Your task to perform on an android device: Open ESPN.com Image 0: 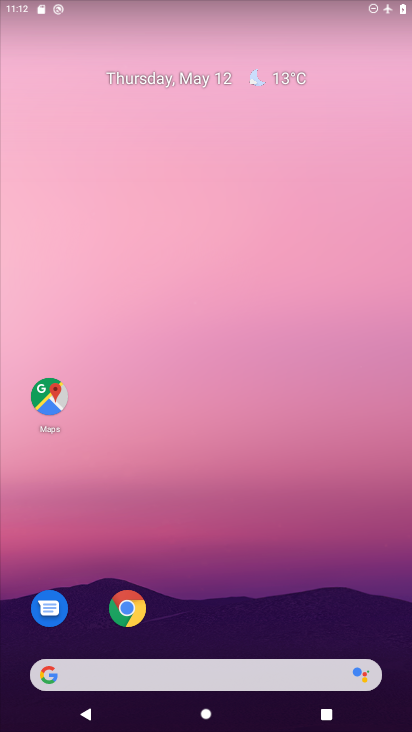
Step 0: drag from (229, 593) to (222, 136)
Your task to perform on an android device: Open ESPN.com Image 1: 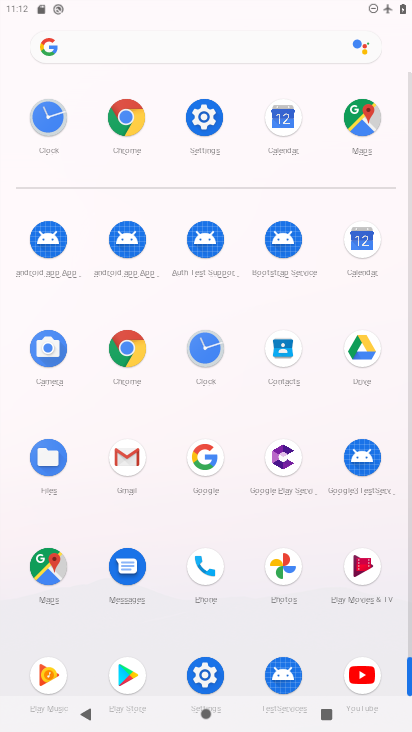
Step 1: click (204, 458)
Your task to perform on an android device: Open ESPN.com Image 2: 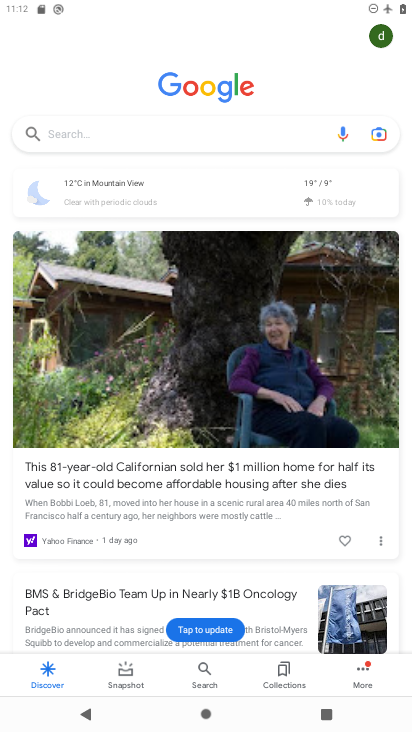
Step 2: click (130, 120)
Your task to perform on an android device: Open ESPN.com Image 3: 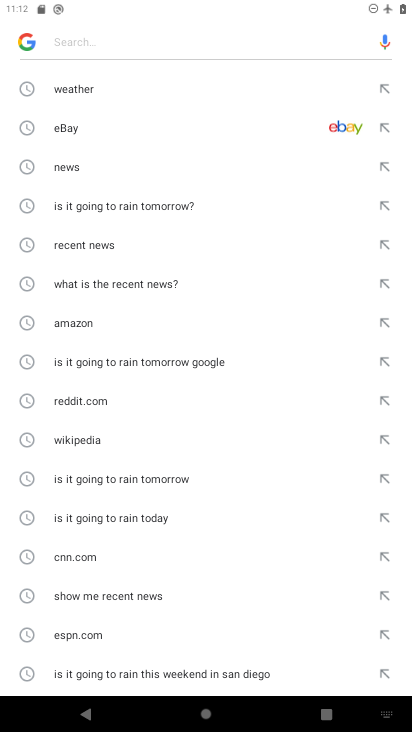
Step 3: click (108, 636)
Your task to perform on an android device: Open ESPN.com Image 4: 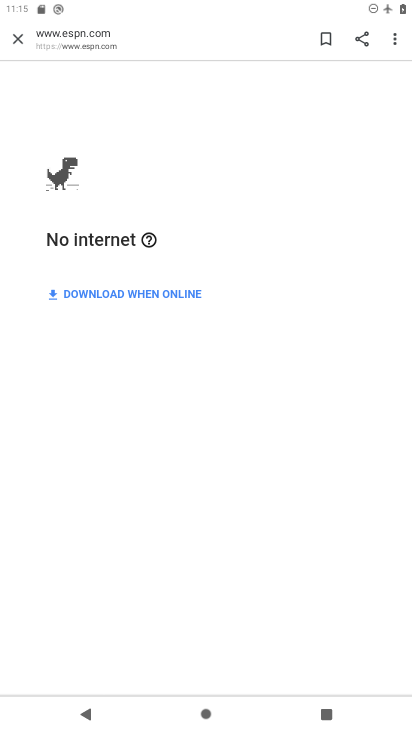
Step 4: task complete